Your task to perform on an android device: Open maps Image 0: 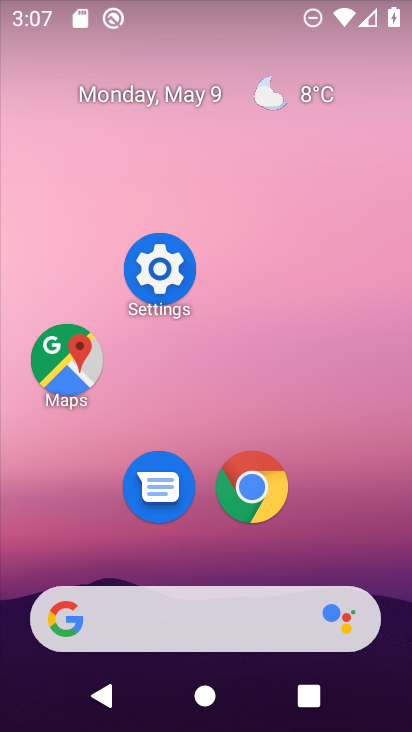
Step 0: click (76, 343)
Your task to perform on an android device: Open maps Image 1: 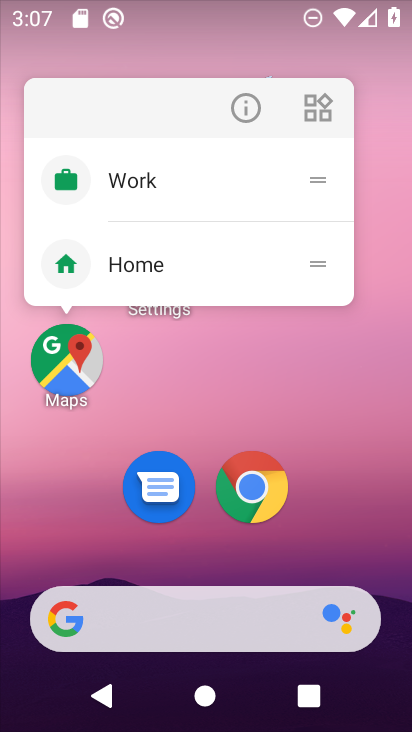
Step 1: click (79, 379)
Your task to perform on an android device: Open maps Image 2: 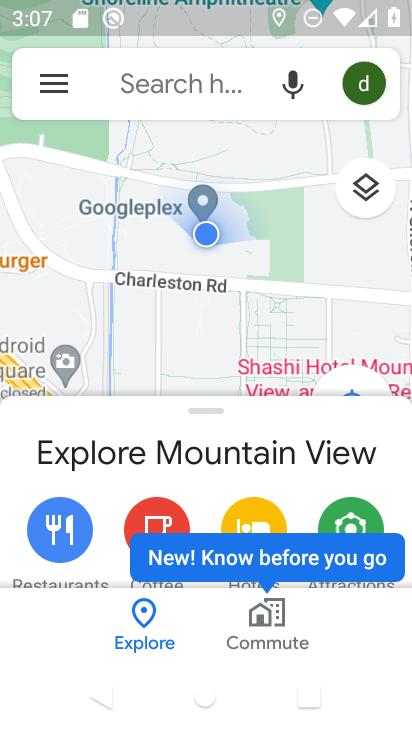
Step 2: task complete